Your task to perform on an android device: Search for the best 4K TV Image 0: 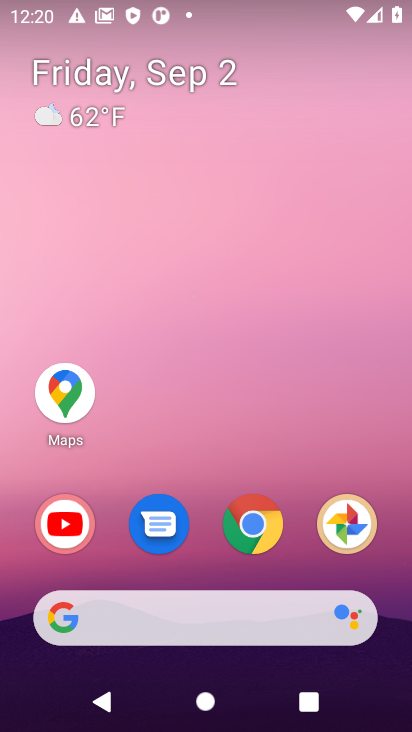
Step 0: click (248, 524)
Your task to perform on an android device: Search for the best 4K TV Image 1: 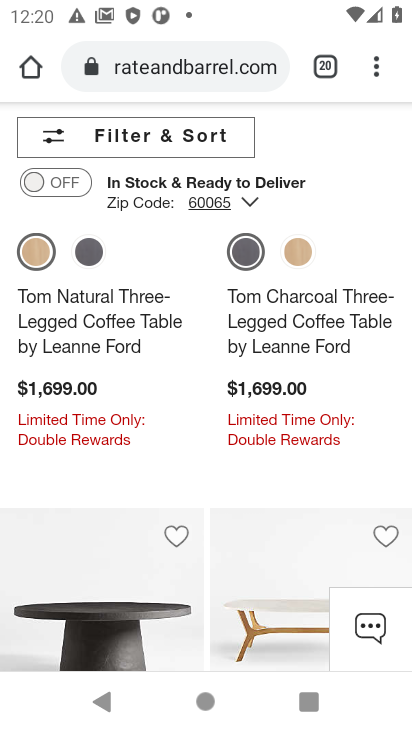
Step 1: click (324, 68)
Your task to perform on an android device: Search for the best 4K TV Image 2: 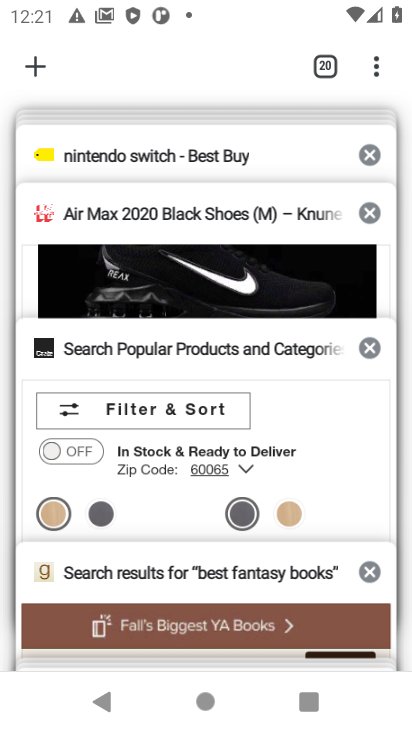
Step 2: click (38, 68)
Your task to perform on an android device: Search for the best 4K TV Image 3: 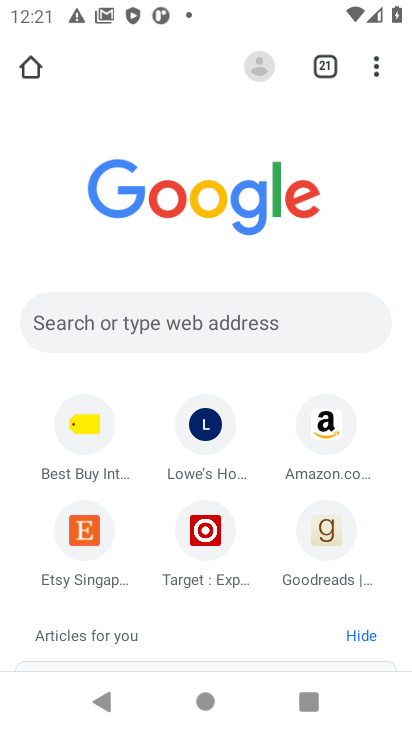
Step 3: click (201, 320)
Your task to perform on an android device: Search for the best 4K TV Image 4: 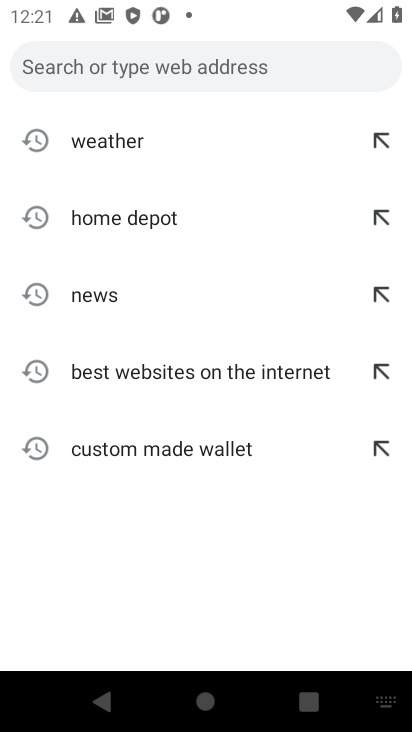
Step 4: type "best 4K TV"
Your task to perform on an android device: Search for the best 4K TV Image 5: 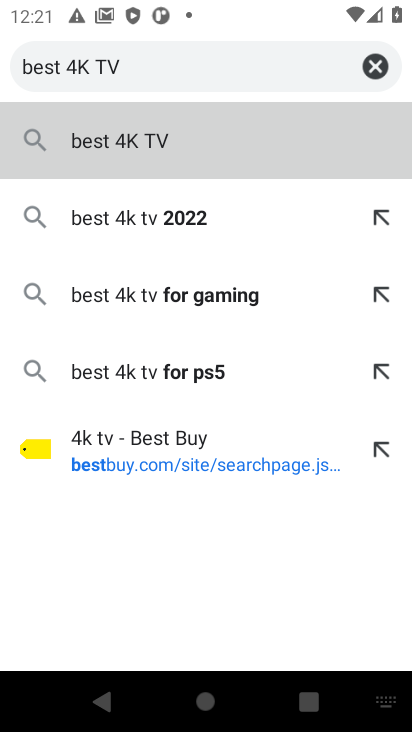
Step 5: click (204, 155)
Your task to perform on an android device: Search for the best 4K TV Image 6: 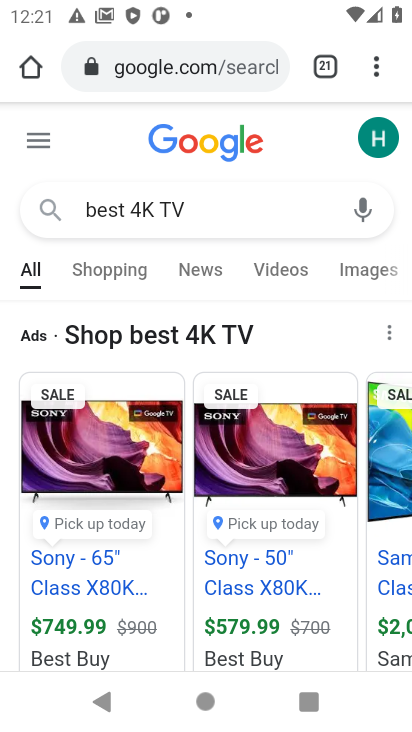
Step 6: drag from (188, 592) to (183, 294)
Your task to perform on an android device: Search for the best 4K TV Image 7: 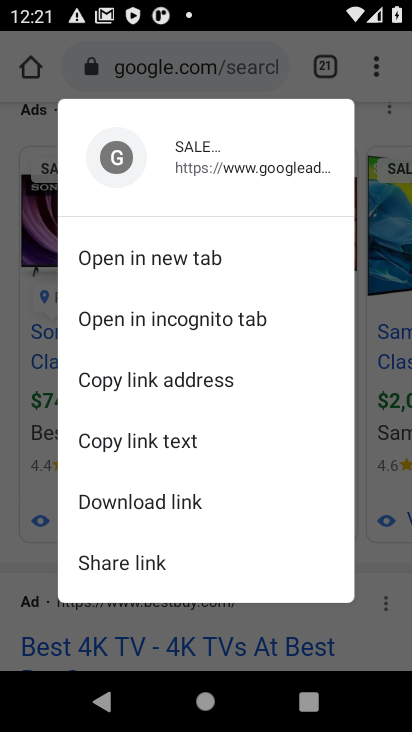
Step 7: click (387, 644)
Your task to perform on an android device: Search for the best 4K TV Image 8: 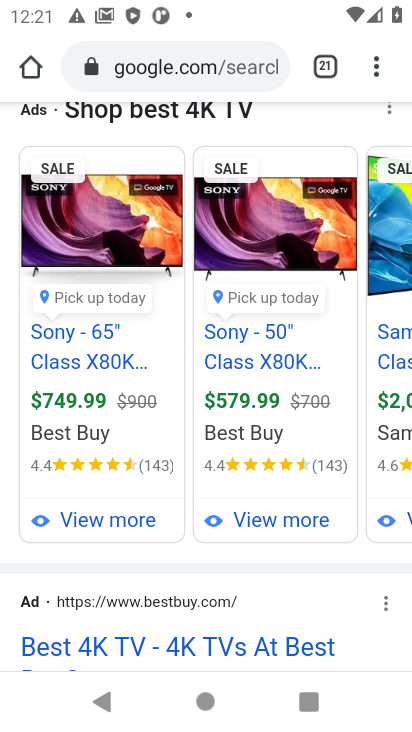
Step 8: drag from (387, 644) to (350, 414)
Your task to perform on an android device: Search for the best 4K TV Image 9: 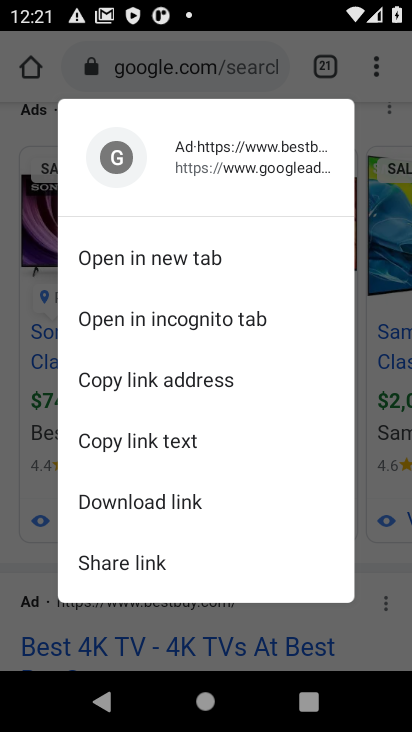
Step 9: click (368, 629)
Your task to perform on an android device: Search for the best 4K TV Image 10: 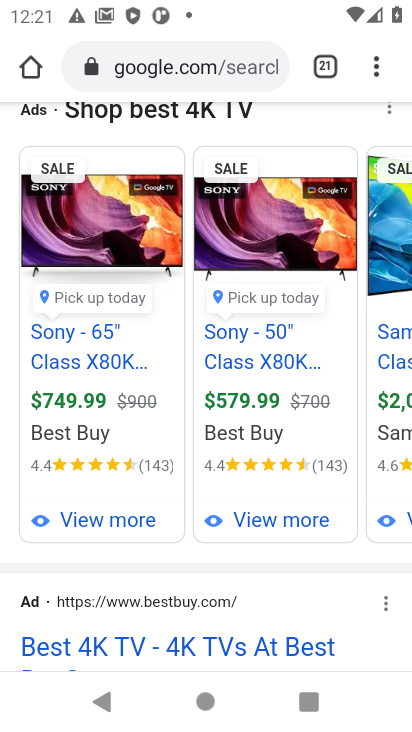
Step 10: task complete